Your task to perform on an android device: toggle notifications settings in the gmail app Image 0: 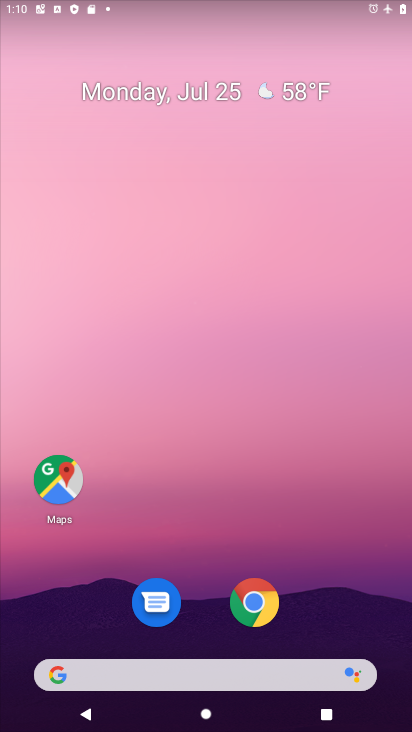
Step 0: drag from (195, 594) to (197, 149)
Your task to perform on an android device: toggle notifications settings in the gmail app Image 1: 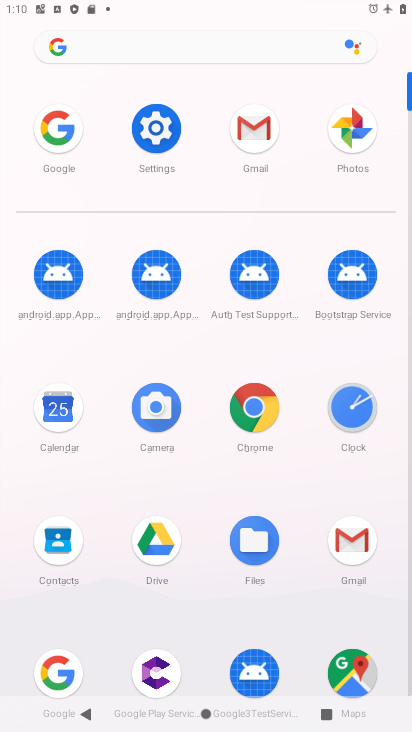
Step 1: click (275, 128)
Your task to perform on an android device: toggle notifications settings in the gmail app Image 2: 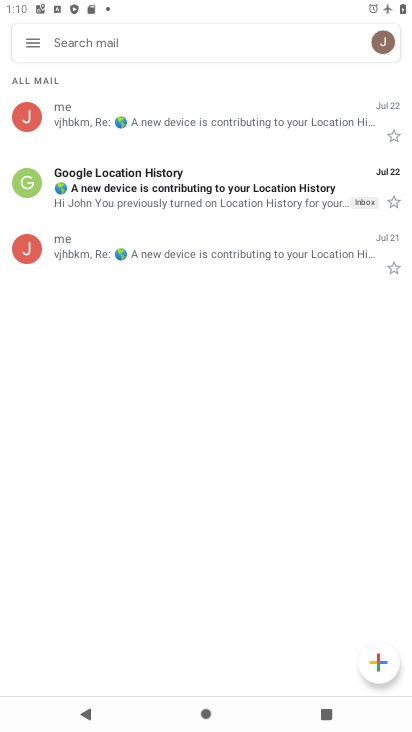
Step 2: click (42, 44)
Your task to perform on an android device: toggle notifications settings in the gmail app Image 3: 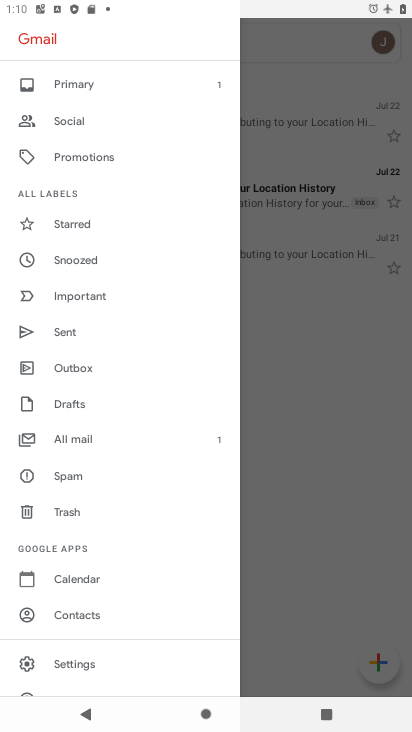
Step 3: click (105, 654)
Your task to perform on an android device: toggle notifications settings in the gmail app Image 4: 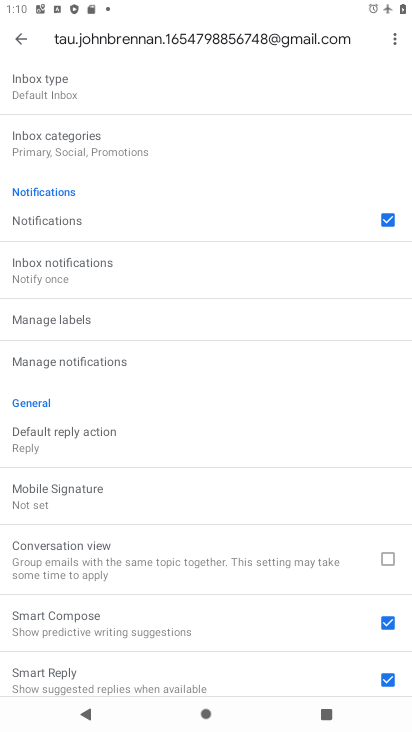
Step 4: click (158, 371)
Your task to perform on an android device: toggle notifications settings in the gmail app Image 5: 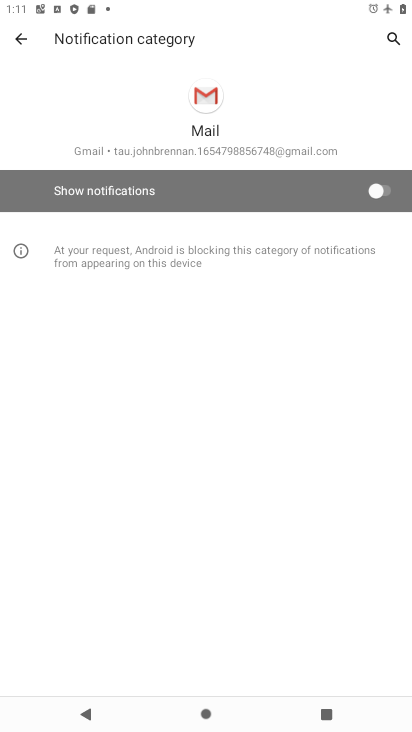
Step 5: click (394, 197)
Your task to perform on an android device: toggle notifications settings in the gmail app Image 6: 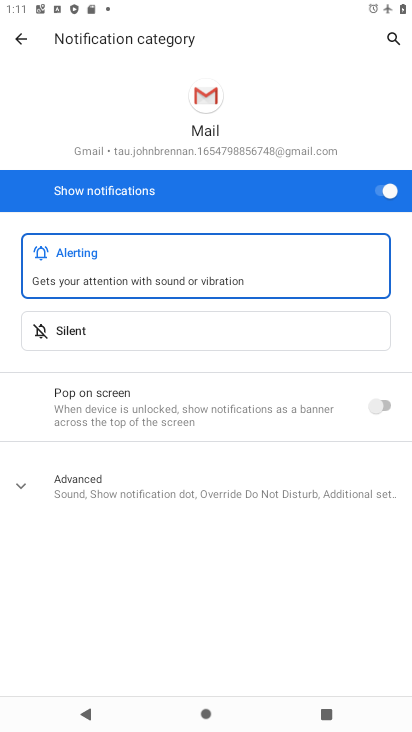
Step 6: task complete